Your task to perform on an android device: turn on location history Image 0: 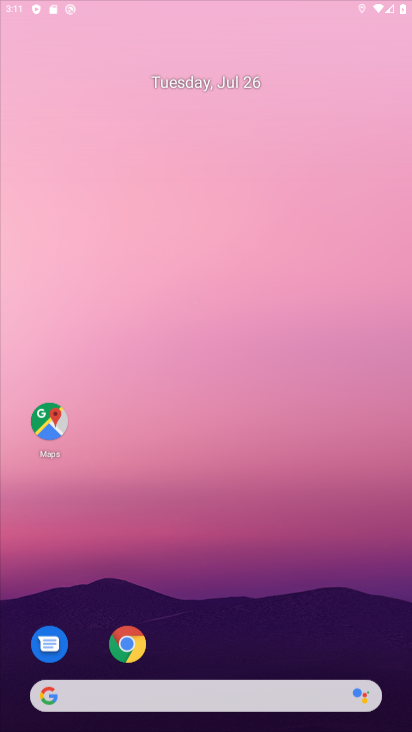
Step 0: click (289, 194)
Your task to perform on an android device: turn on location history Image 1: 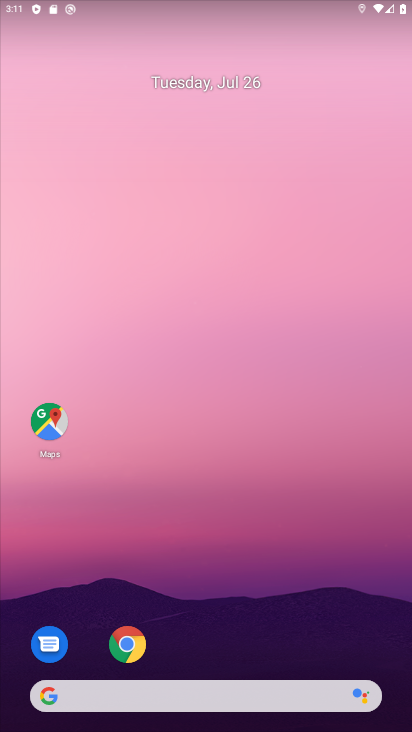
Step 1: drag from (217, 646) to (309, 123)
Your task to perform on an android device: turn on location history Image 2: 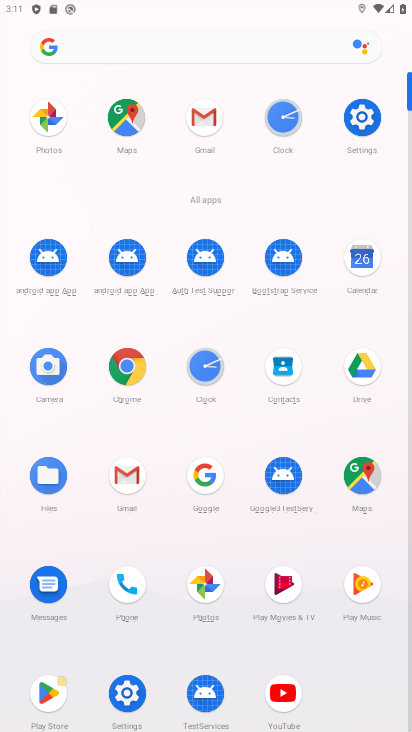
Step 2: click (115, 688)
Your task to perform on an android device: turn on location history Image 3: 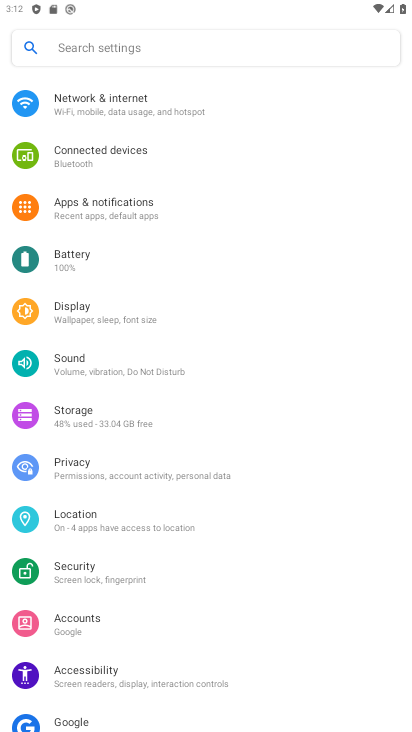
Step 3: click (86, 531)
Your task to perform on an android device: turn on location history Image 4: 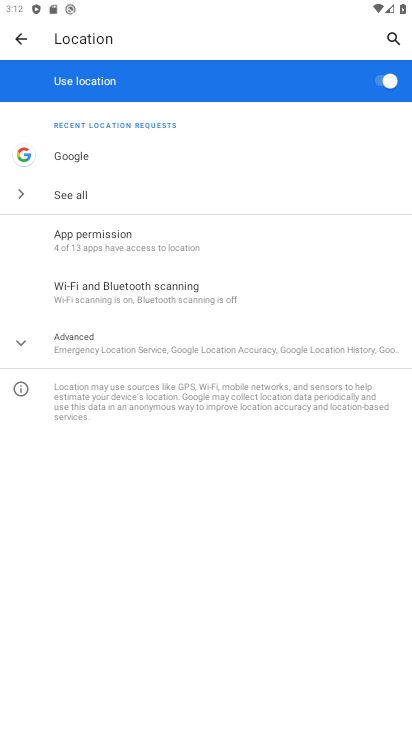
Step 4: drag from (178, 568) to (178, 353)
Your task to perform on an android device: turn on location history Image 5: 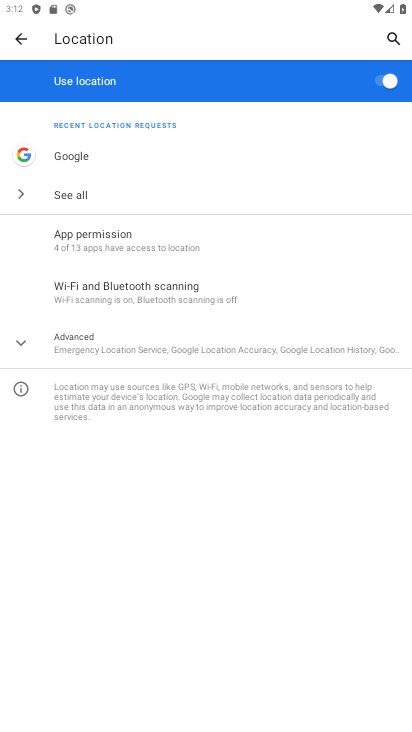
Step 5: click (102, 342)
Your task to perform on an android device: turn on location history Image 6: 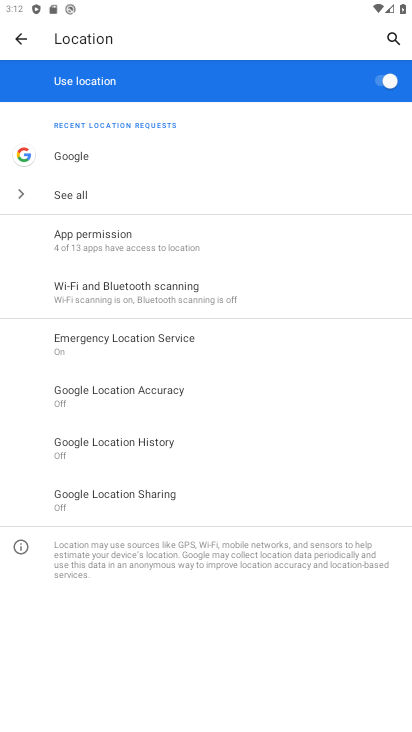
Step 6: click (142, 426)
Your task to perform on an android device: turn on location history Image 7: 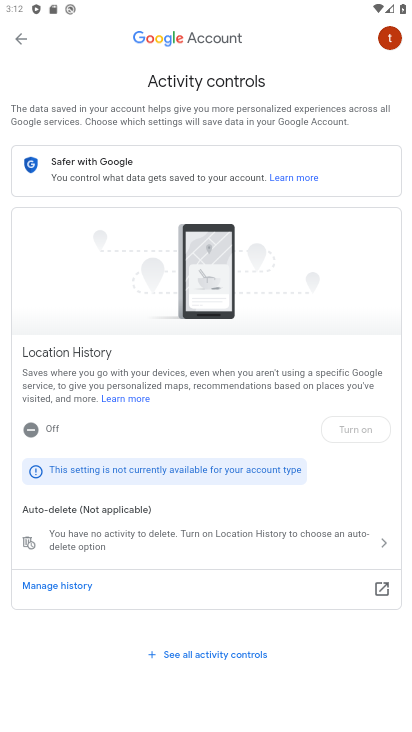
Step 7: drag from (101, 551) to (138, 407)
Your task to perform on an android device: turn on location history Image 8: 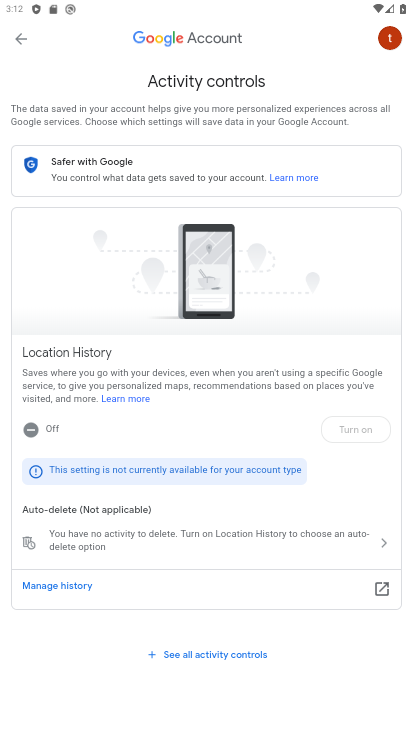
Step 8: drag from (212, 578) to (209, 260)
Your task to perform on an android device: turn on location history Image 9: 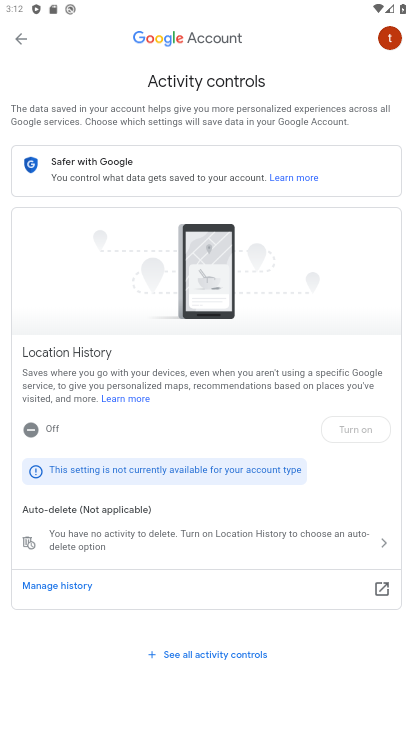
Step 9: drag from (329, 151) to (224, 672)
Your task to perform on an android device: turn on location history Image 10: 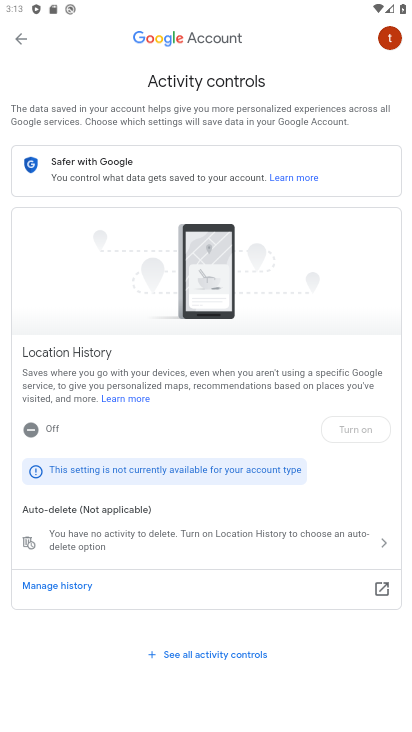
Step 10: drag from (212, 605) to (328, 136)
Your task to perform on an android device: turn on location history Image 11: 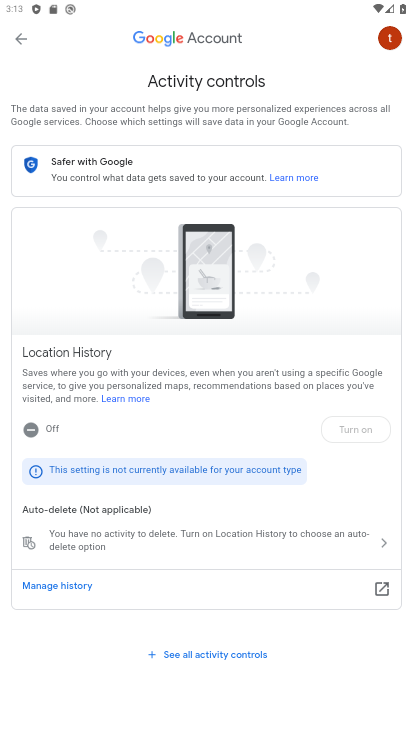
Step 11: drag from (327, 123) to (147, 730)
Your task to perform on an android device: turn on location history Image 12: 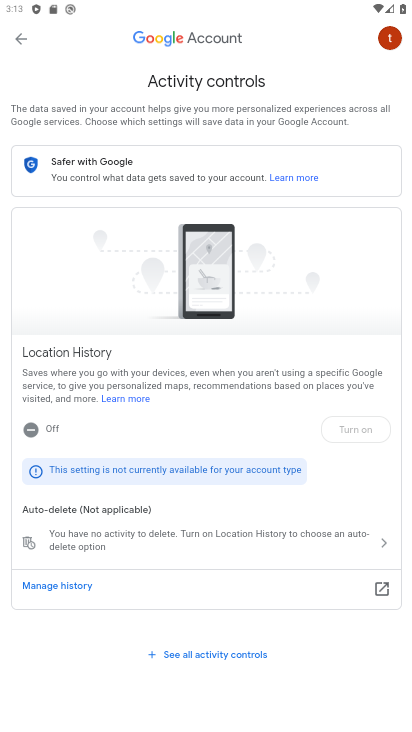
Step 12: drag from (223, 540) to (264, 290)
Your task to perform on an android device: turn on location history Image 13: 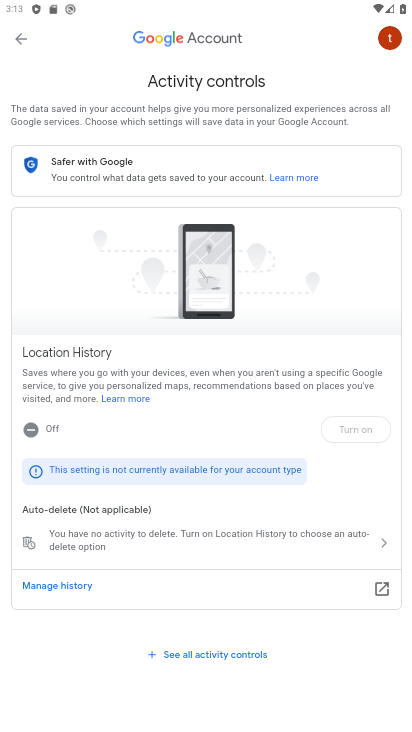
Step 13: drag from (240, 507) to (277, 186)
Your task to perform on an android device: turn on location history Image 14: 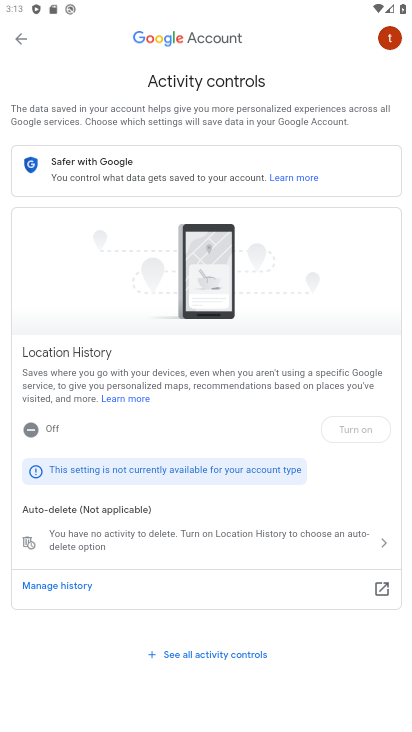
Step 14: click (349, 420)
Your task to perform on an android device: turn on location history Image 15: 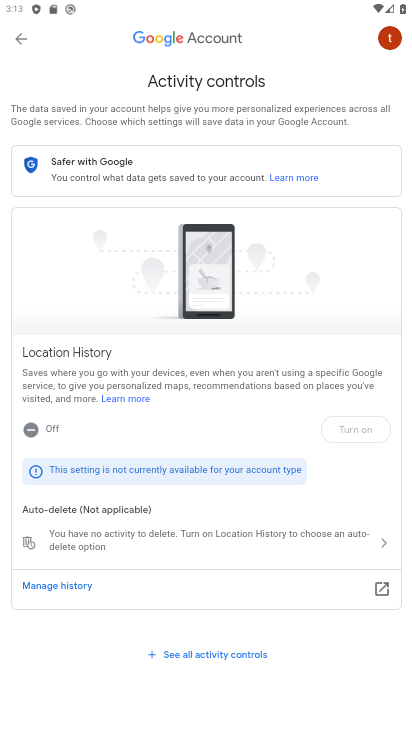
Step 15: task complete